Your task to perform on an android device: Open the web browser Image 0: 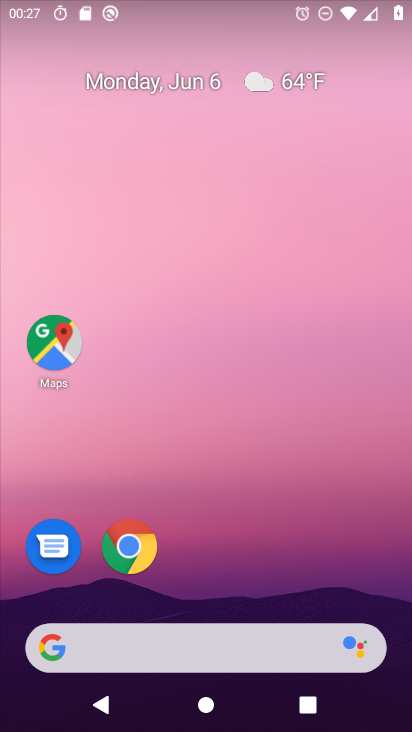
Step 0: drag from (190, 607) to (296, 64)
Your task to perform on an android device: Open the web browser Image 1: 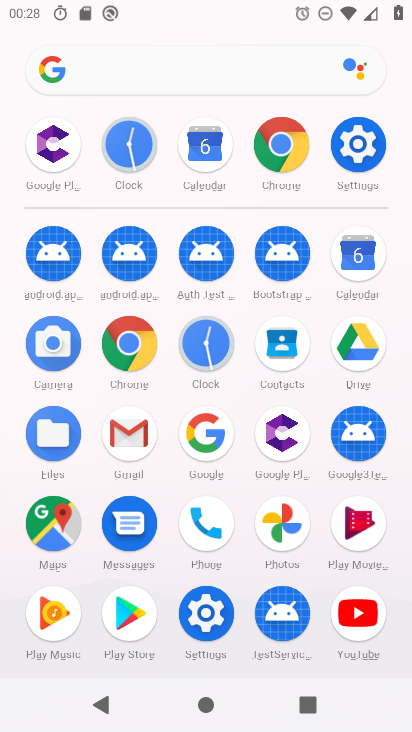
Step 1: click (123, 339)
Your task to perform on an android device: Open the web browser Image 2: 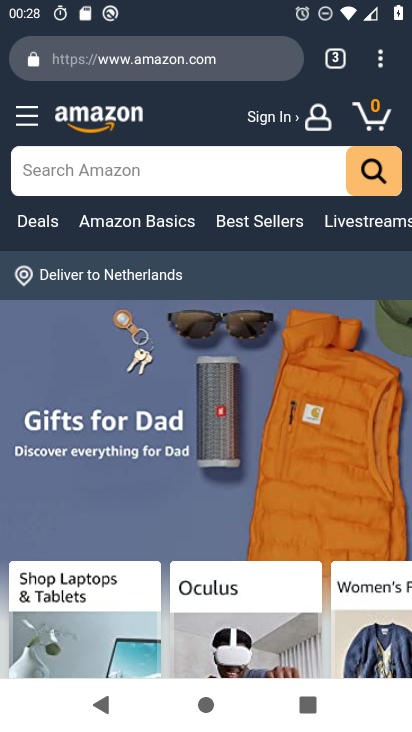
Step 2: task complete